Your task to perform on an android device: star an email in the gmail app Image 0: 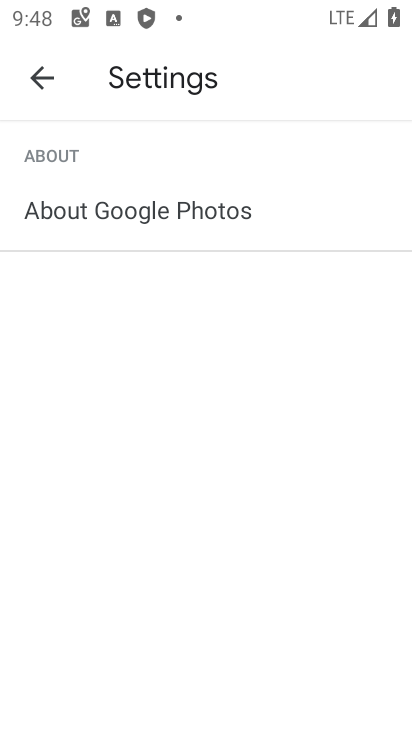
Step 0: press home button
Your task to perform on an android device: star an email in the gmail app Image 1: 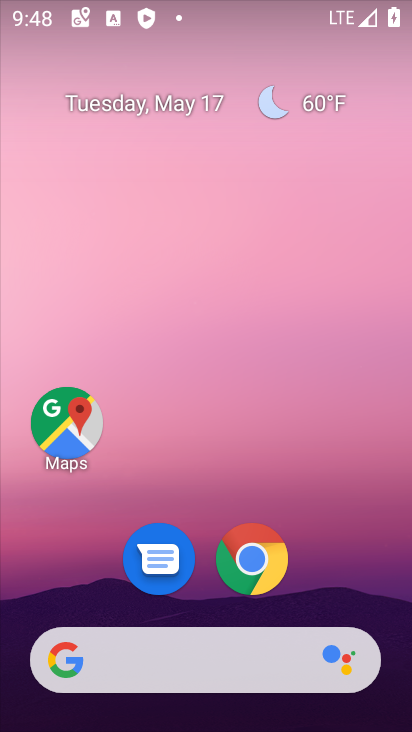
Step 1: drag from (200, 597) to (204, 145)
Your task to perform on an android device: star an email in the gmail app Image 2: 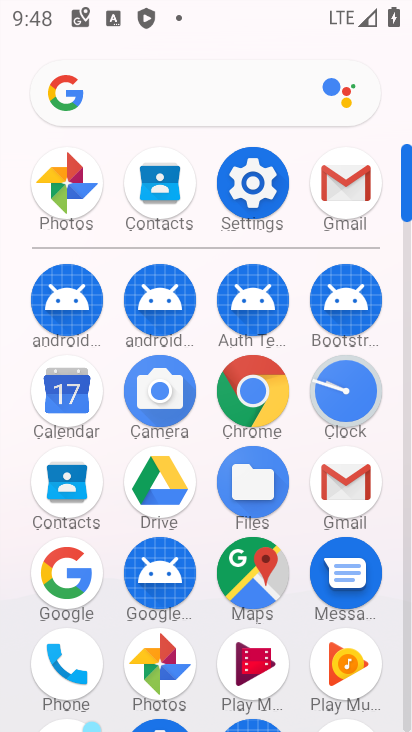
Step 2: click (324, 185)
Your task to perform on an android device: star an email in the gmail app Image 3: 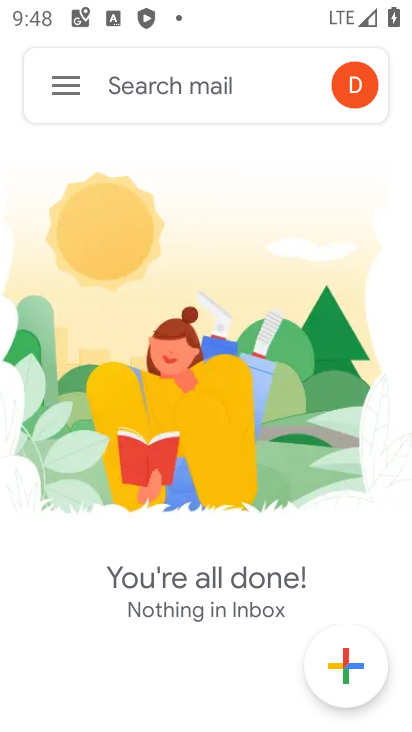
Step 3: click (63, 101)
Your task to perform on an android device: star an email in the gmail app Image 4: 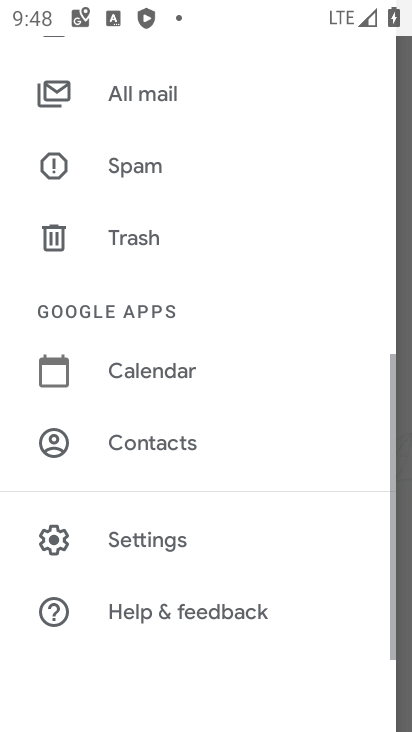
Step 4: click (142, 89)
Your task to perform on an android device: star an email in the gmail app Image 5: 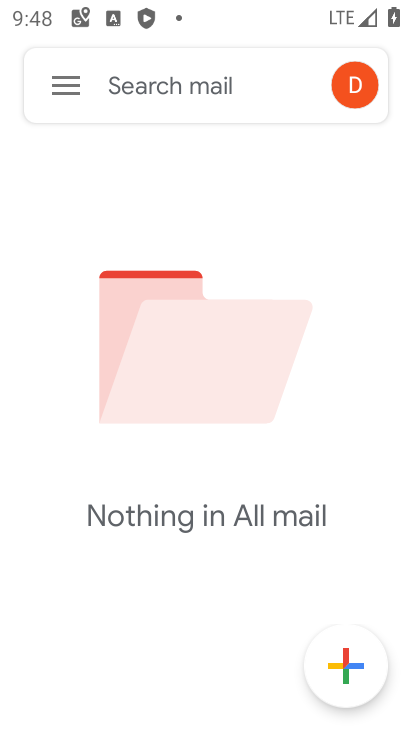
Step 5: task complete